Your task to perform on an android device: change notification settings in the gmail app Image 0: 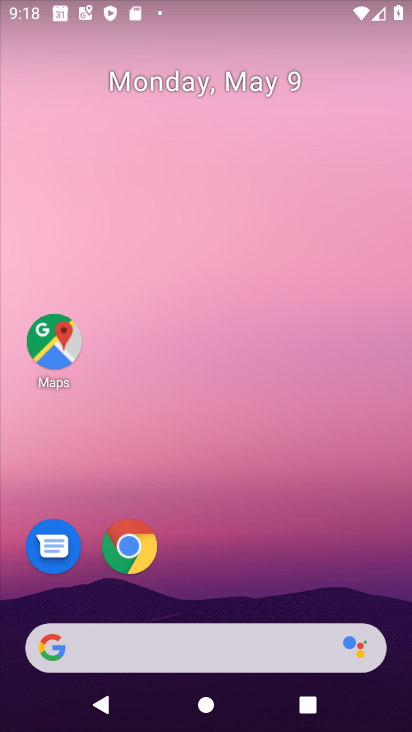
Step 0: drag from (250, 691) to (277, 15)
Your task to perform on an android device: change notification settings in the gmail app Image 1: 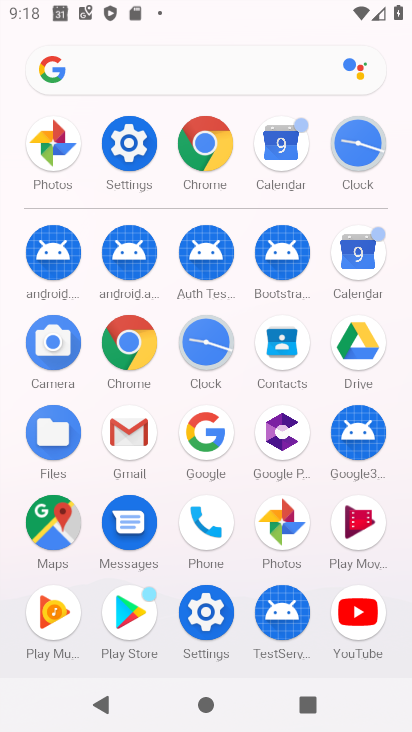
Step 1: click (126, 428)
Your task to perform on an android device: change notification settings in the gmail app Image 2: 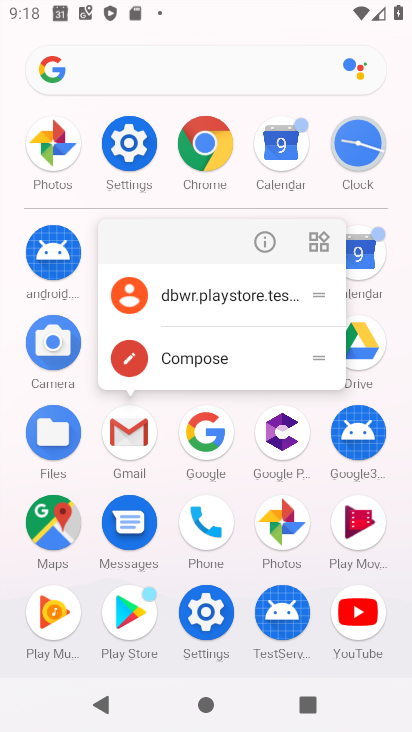
Step 2: click (263, 238)
Your task to perform on an android device: change notification settings in the gmail app Image 3: 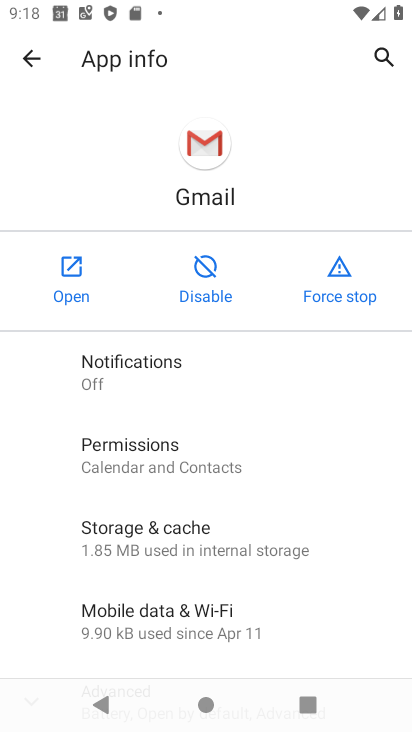
Step 3: click (87, 367)
Your task to perform on an android device: change notification settings in the gmail app Image 4: 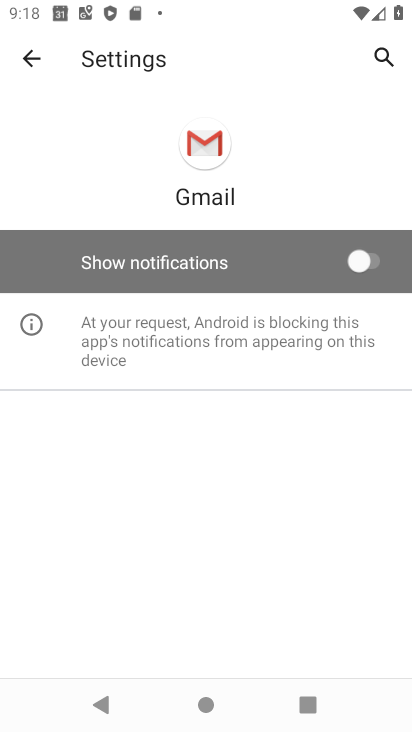
Step 4: click (371, 266)
Your task to perform on an android device: change notification settings in the gmail app Image 5: 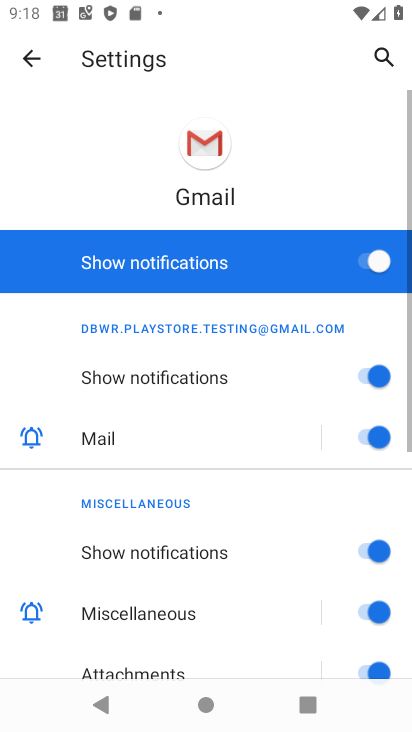
Step 5: task complete